Your task to perform on an android device: turn on location history Image 0: 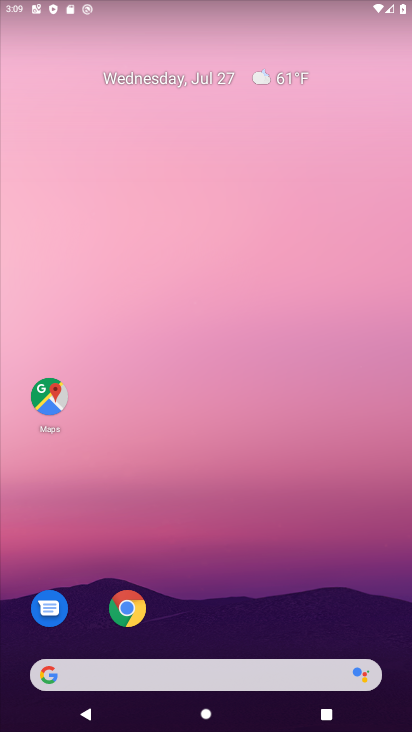
Step 0: drag from (292, 566) to (213, 108)
Your task to perform on an android device: turn on location history Image 1: 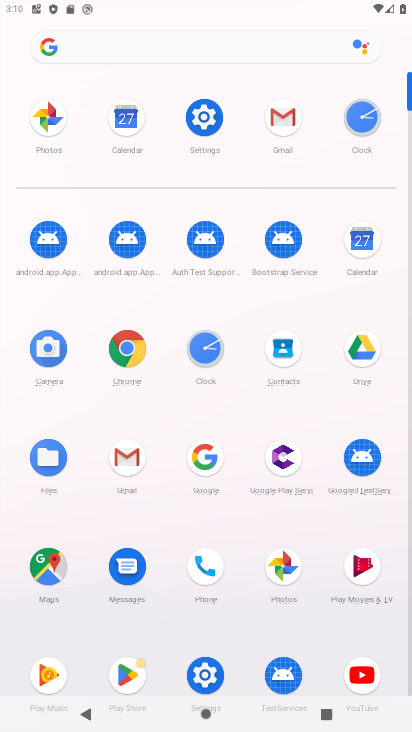
Step 1: click (206, 128)
Your task to perform on an android device: turn on location history Image 2: 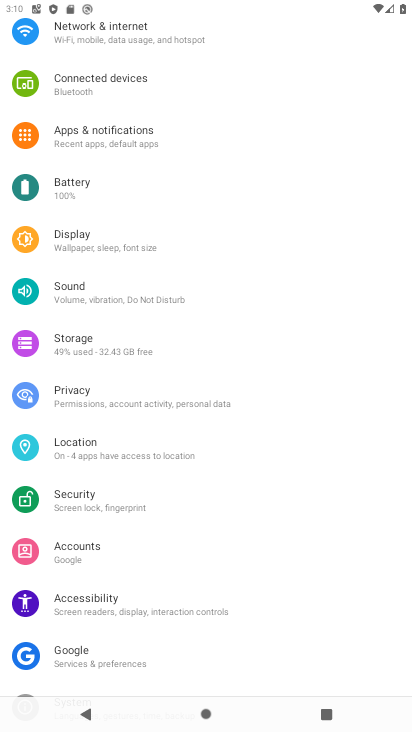
Step 2: click (136, 441)
Your task to perform on an android device: turn on location history Image 3: 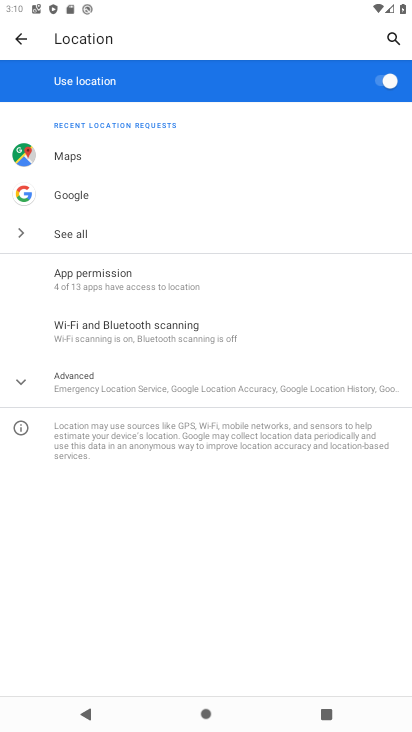
Step 3: click (125, 383)
Your task to perform on an android device: turn on location history Image 4: 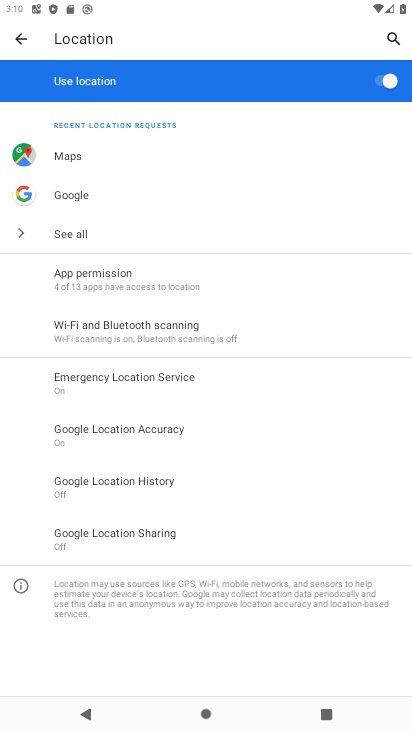
Step 4: click (125, 481)
Your task to perform on an android device: turn on location history Image 5: 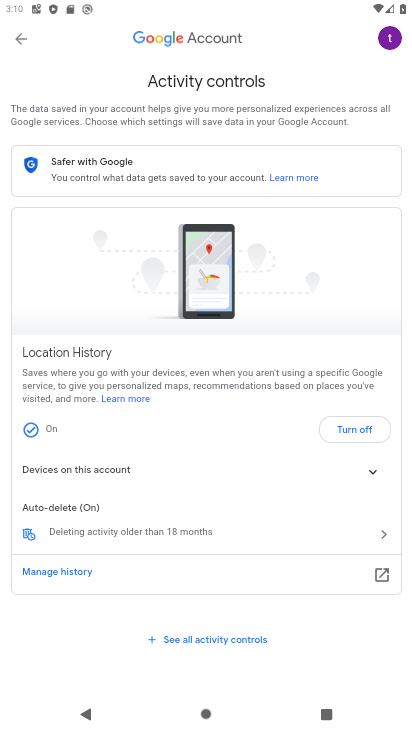
Step 5: task complete